Your task to perform on an android device: What is the recent news? Image 0: 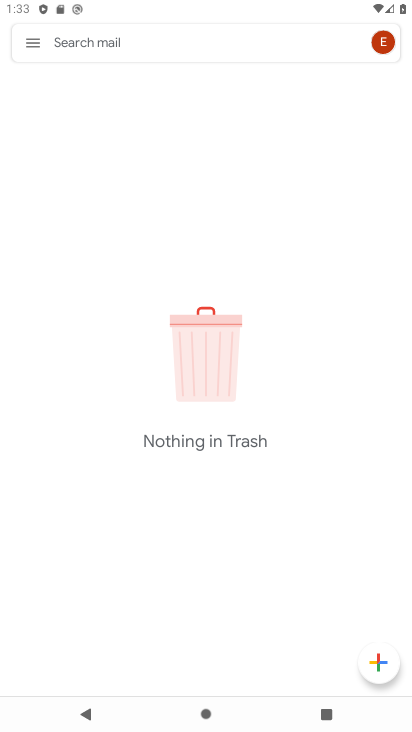
Step 0: press home button
Your task to perform on an android device: What is the recent news? Image 1: 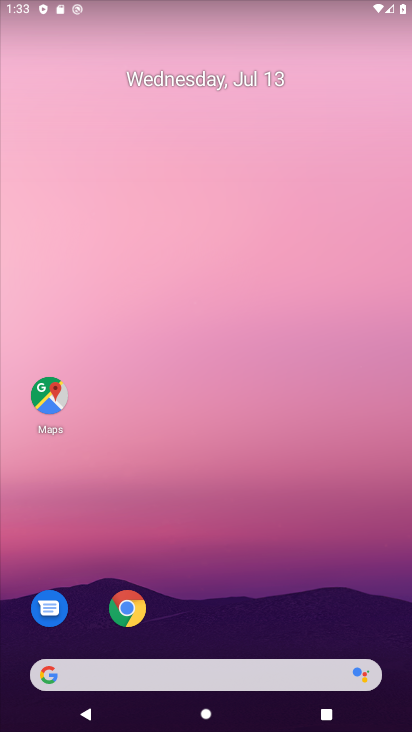
Step 1: task complete